Your task to perform on an android device: What is the recent news? Image 0: 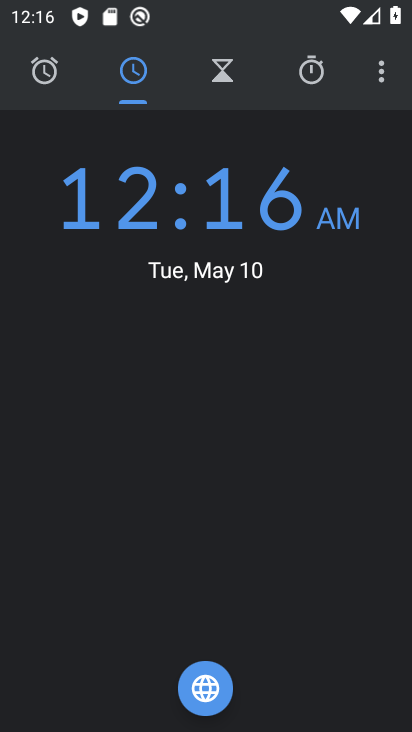
Step 0: press home button
Your task to perform on an android device: What is the recent news? Image 1: 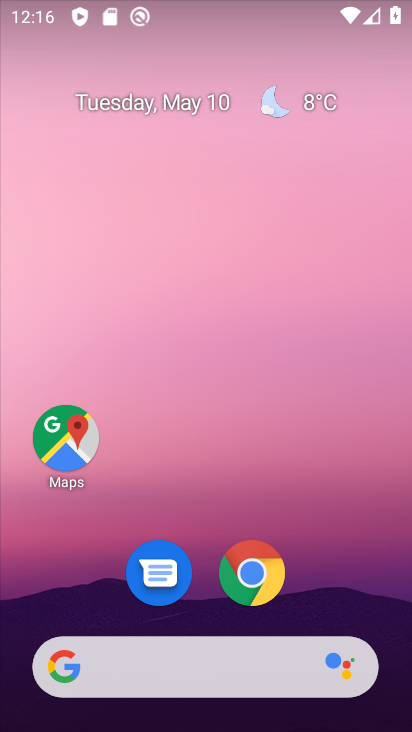
Step 1: click (191, 667)
Your task to perform on an android device: What is the recent news? Image 2: 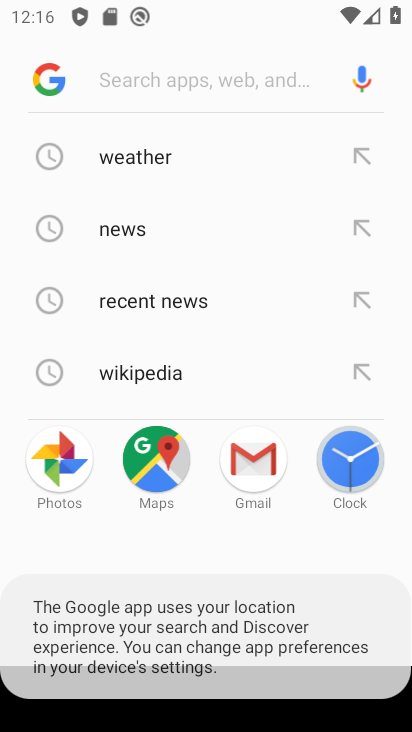
Step 2: click (205, 312)
Your task to perform on an android device: What is the recent news? Image 3: 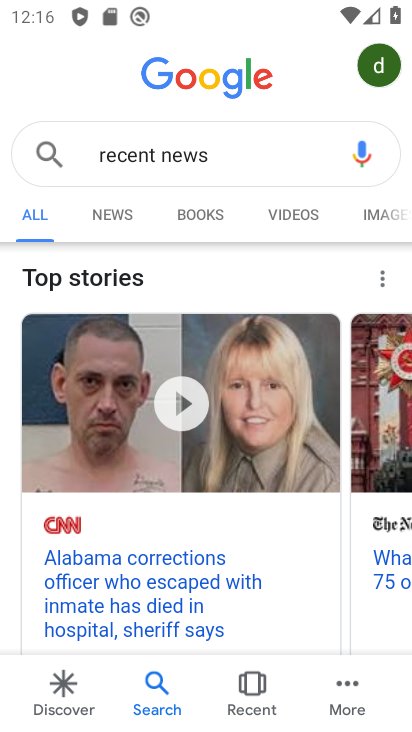
Step 3: task complete